Your task to perform on an android device: Toggle the flashlight Image 0: 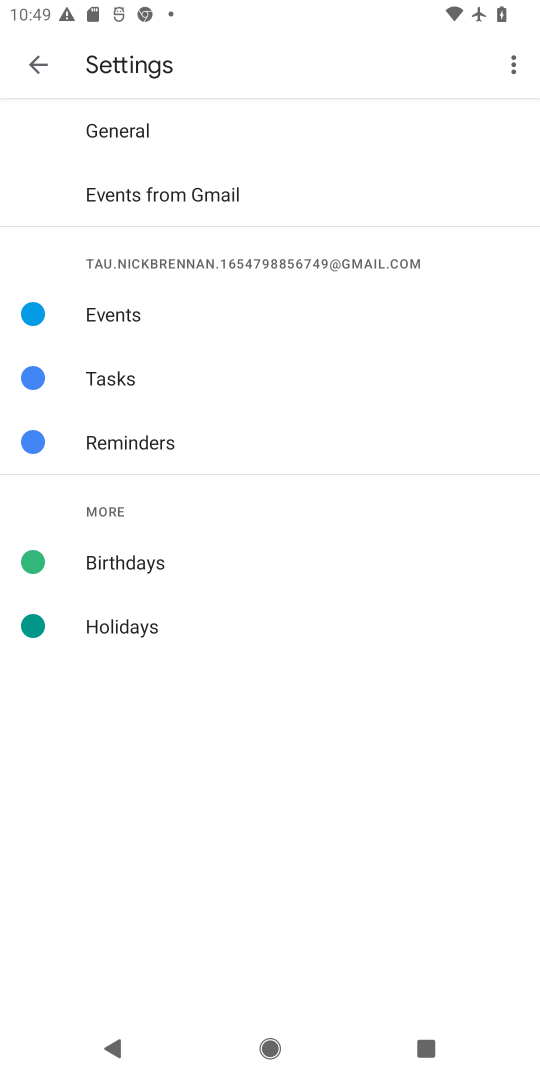
Step 0: press home button
Your task to perform on an android device: Toggle the flashlight Image 1: 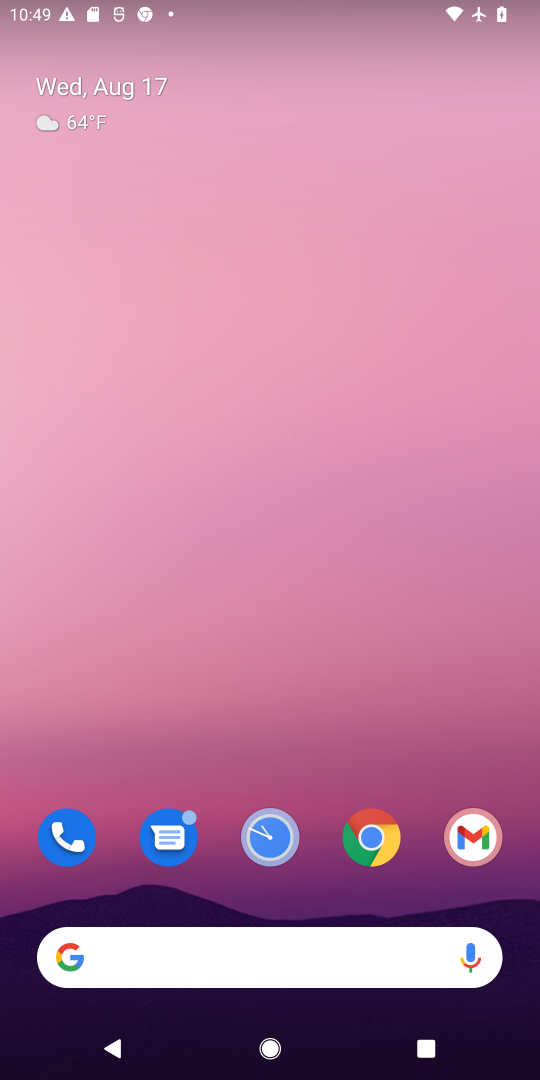
Step 1: drag from (245, 953) to (247, 192)
Your task to perform on an android device: Toggle the flashlight Image 2: 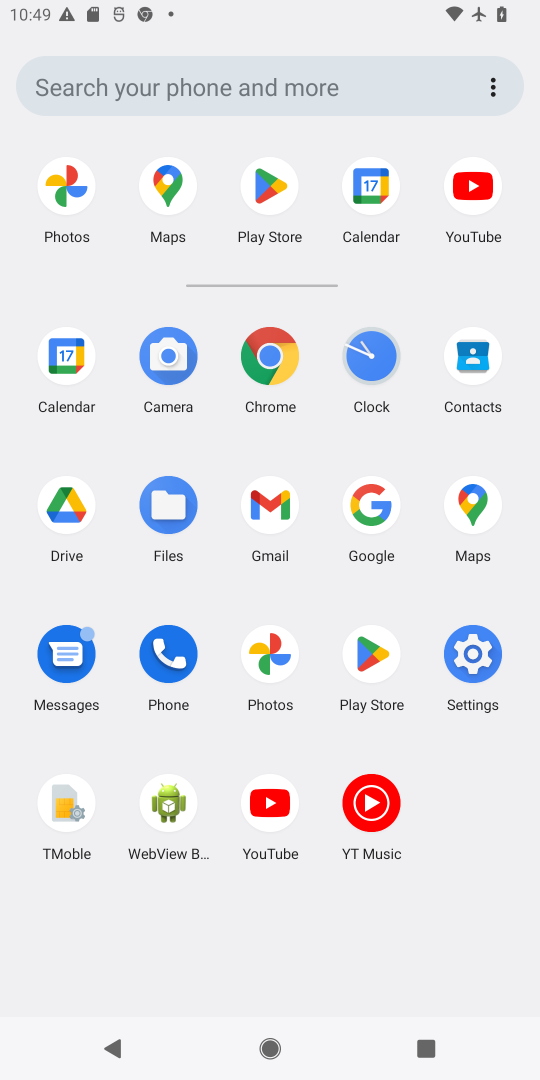
Step 2: click (471, 659)
Your task to perform on an android device: Toggle the flashlight Image 3: 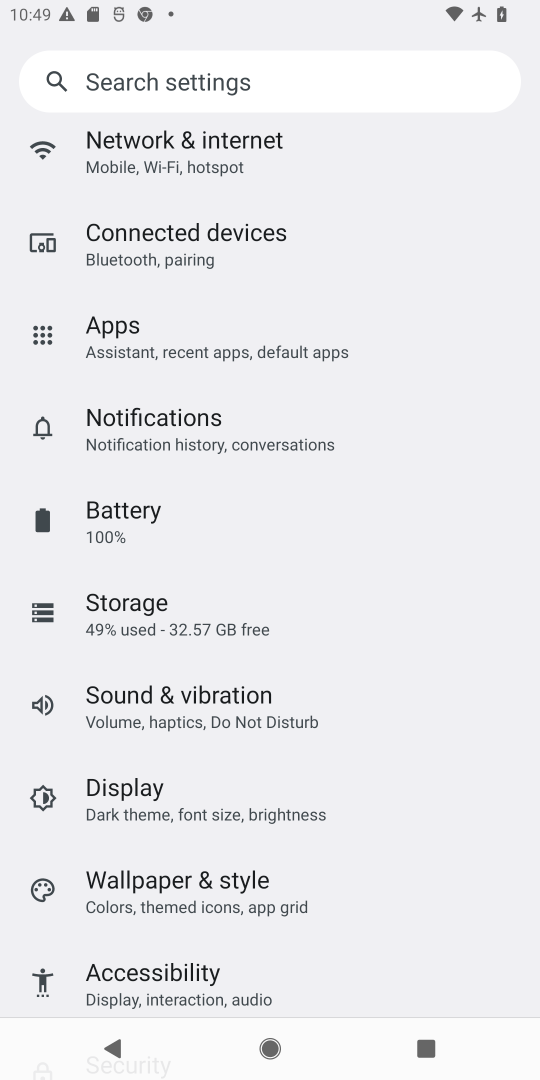
Step 3: click (256, 77)
Your task to perform on an android device: Toggle the flashlight Image 4: 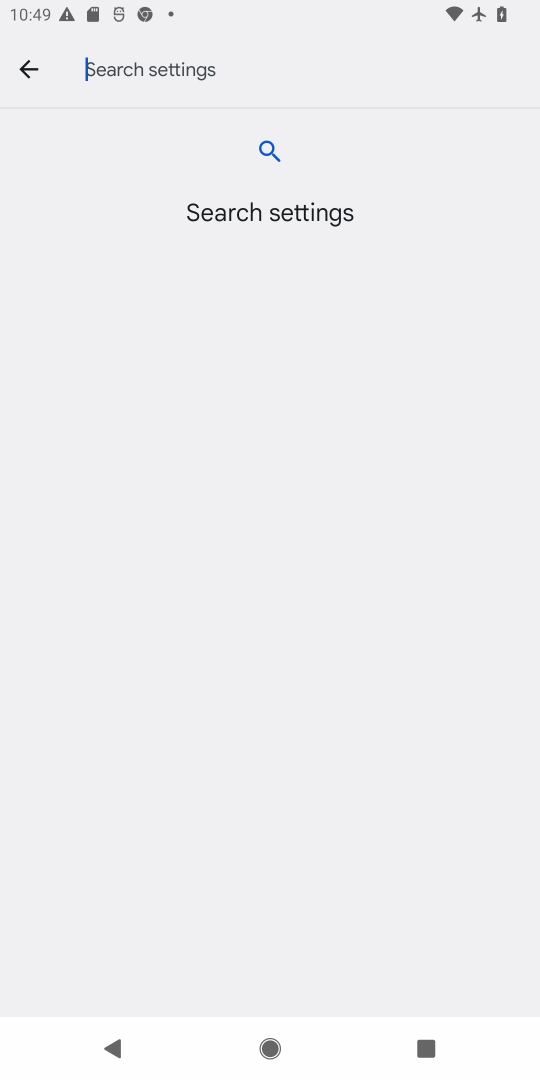
Step 4: type "flashlight"
Your task to perform on an android device: Toggle the flashlight Image 5: 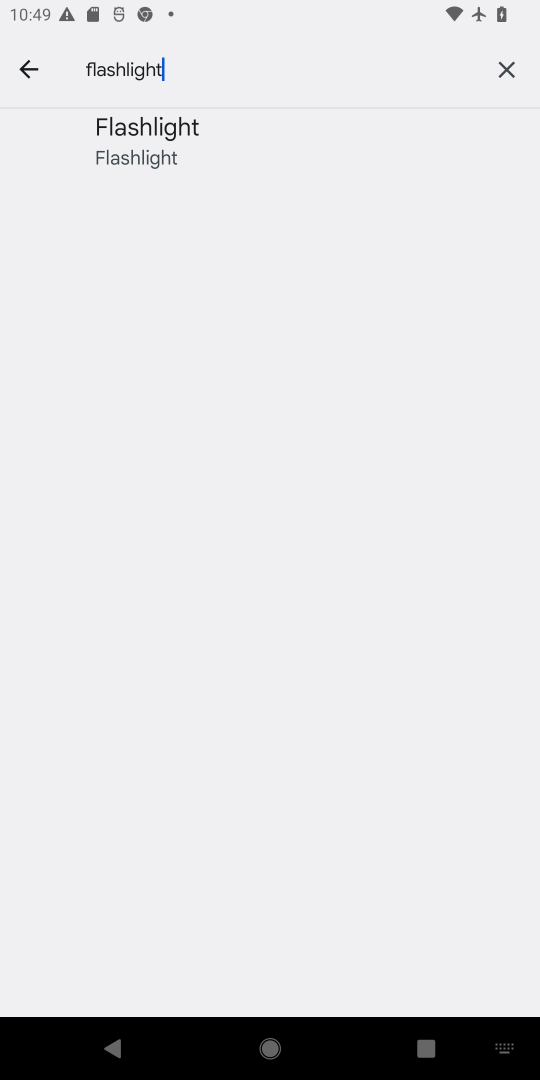
Step 5: click (192, 152)
Your task to perform on an android device: Toggle the flashlight Image 6: 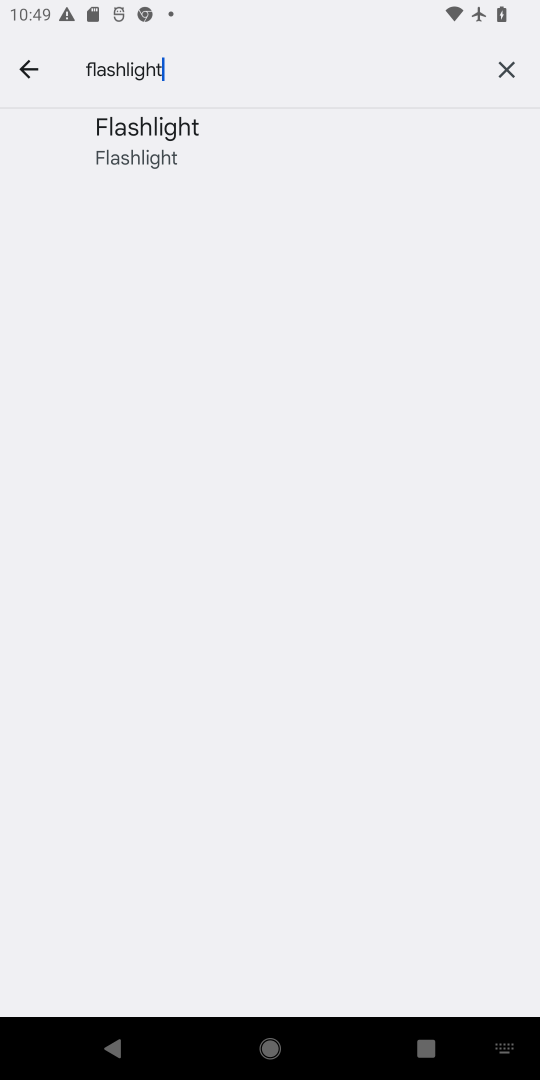
Step 6: task complete